Your task to perform on an android device: turn off location Image 0: 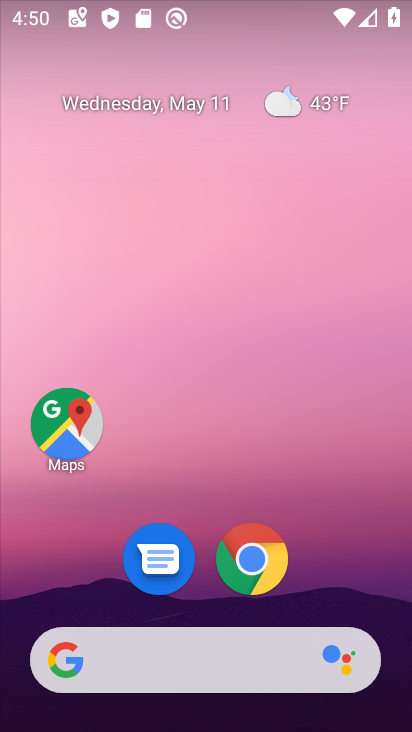
Step 0: drag from (336, 553) to (327, 80)
Your task to perform on an android device: turn off location Image 1: 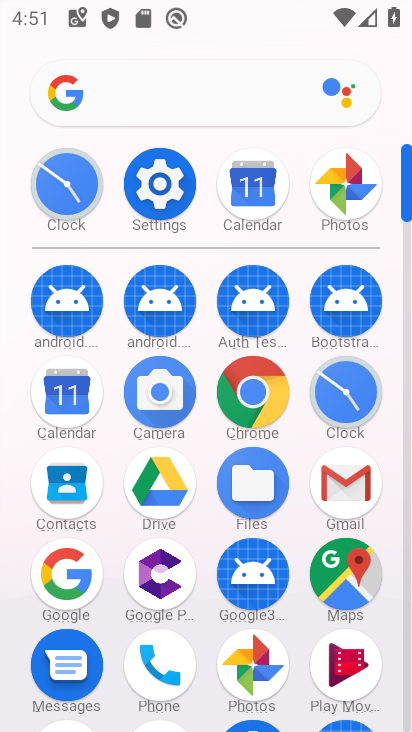
Step 1: click (156, 215)
Your task to perform on an android device: turn off location Image 2: 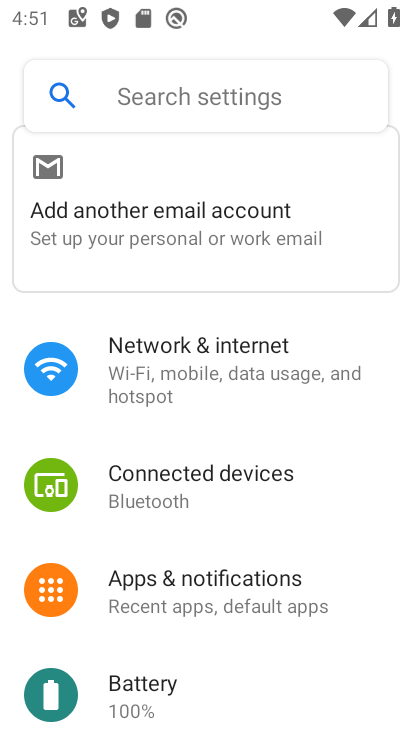
Step 2: drag from (320, 484) to (340, 359)
Your task to perform on an android device: turn off location Image 3: 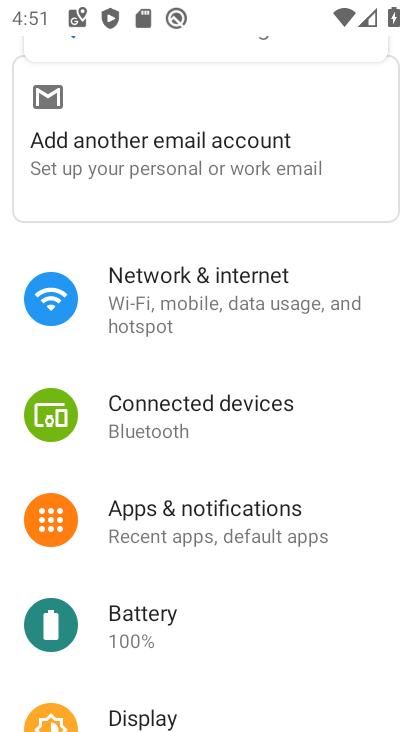
Step 3: drag from (194, 650) to (200, 368)
Your task to perform on an android device: turn off location Image 4: 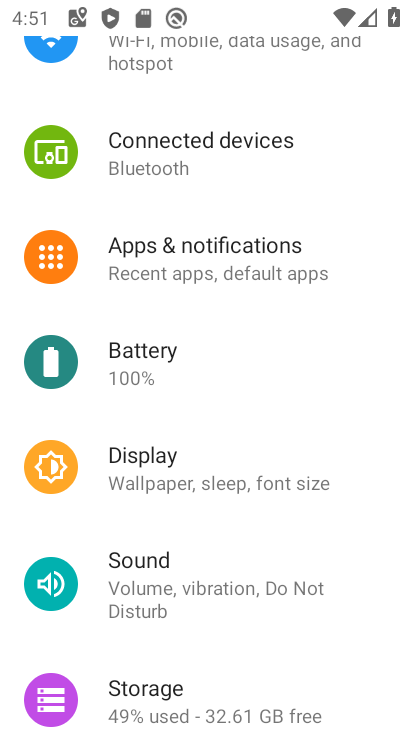
Step 4: drag from (167, 628) to (226, 406)
Your task to perform on an android device: turn off location Image 5: 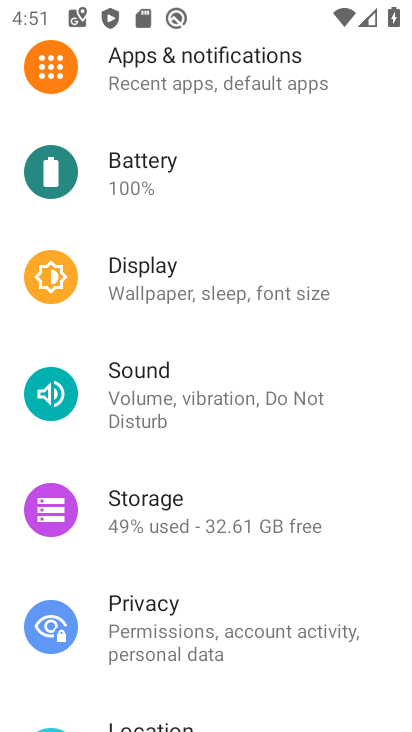
Step 5: drag from (175, 659) to (228, 426)
Your task to perform on an android device: turn off location Image 6: 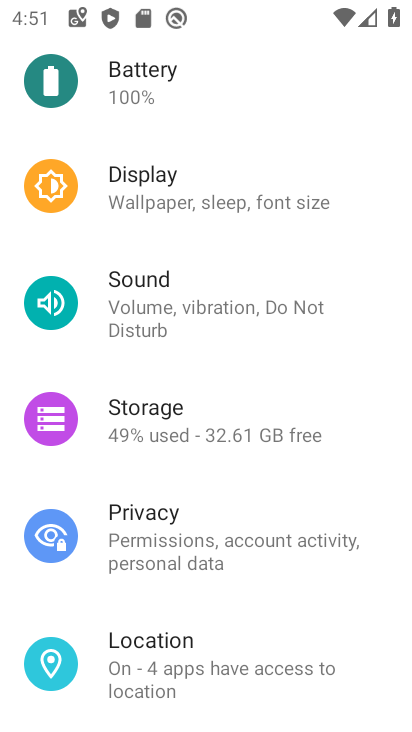
Step 6: click (171, 654)
Your task to perform on an android device: turn off location Image 7: 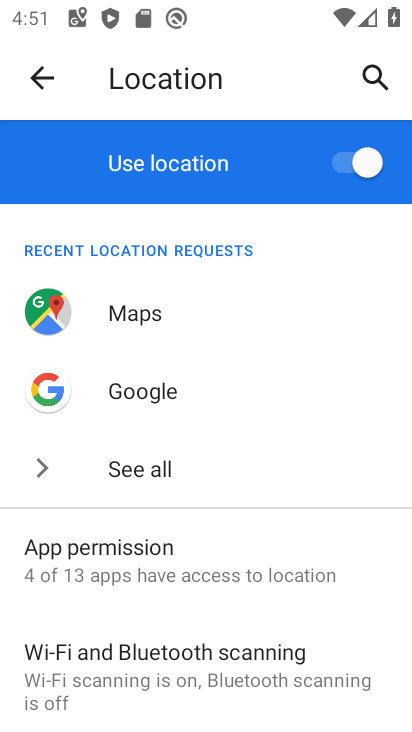
Step 7: task complete